Your task to perform on an android device: Turn off the flashlight Image 0: 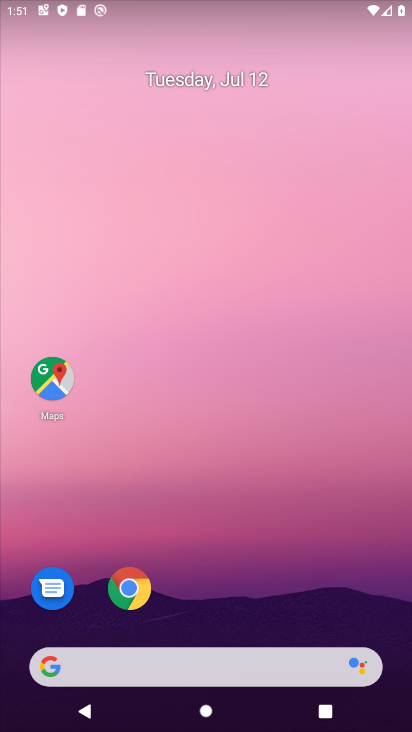
Step 0: drag from (139, 609) to (204, 304)
Your task to perform on an android device: Turn off the flashlight Image 1: 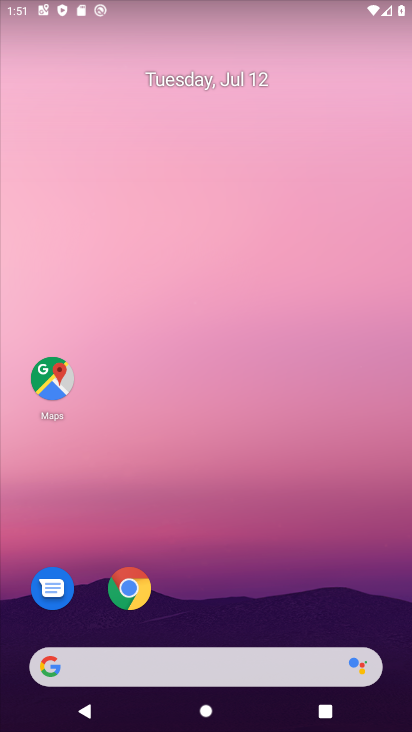
Step 1: drag from (175, 606) to (174, 113)
Your task to perform on an android device: Turn off the flashlight Image 2: 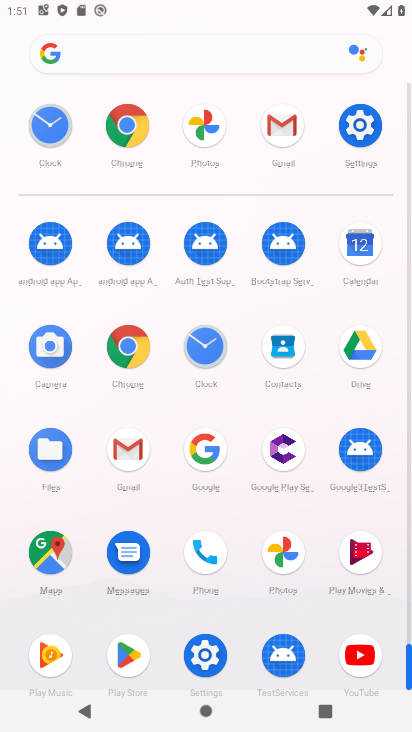
Step 2: click (355, 114)
Your task to perform on an android device: Turn off the flashlight Image 3: 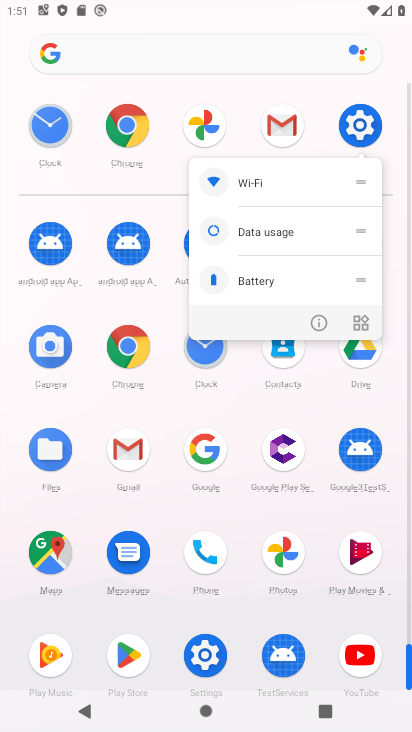
Step 3: click (314, 318)
Your task to perform on an android device: Turn off the flashlight Image 4: 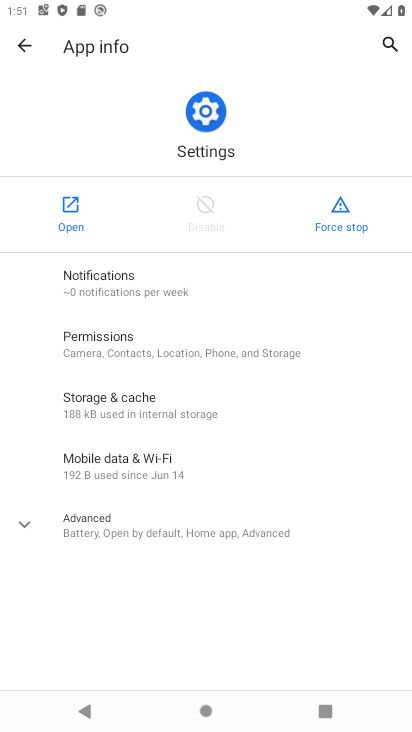
Step 4: click (73, 201)
Your task to perform on an android device: Turn off the flashlight Image 5: 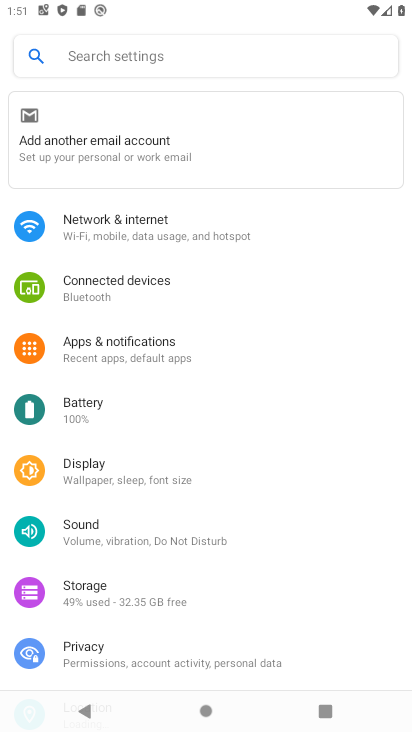
Step 5: drag from (255, 552) to (274, 193)
Your task to perform on an android device: Turn off the flashlight Image 6: 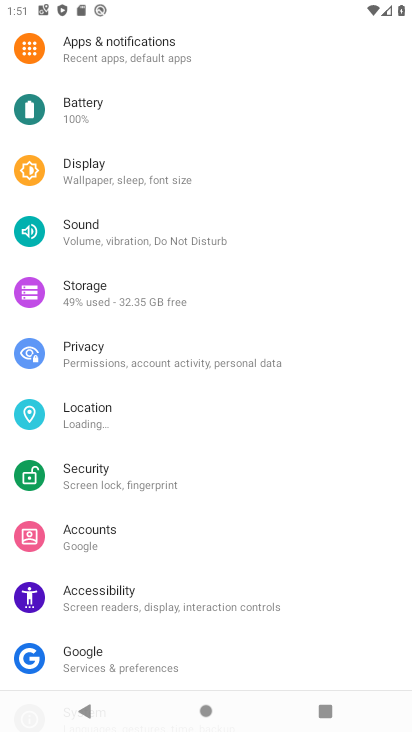
Step 6: drag from (220, 229) to (288, 691)
Your task to perform on an android device: Turn off the flashlight Image 7: 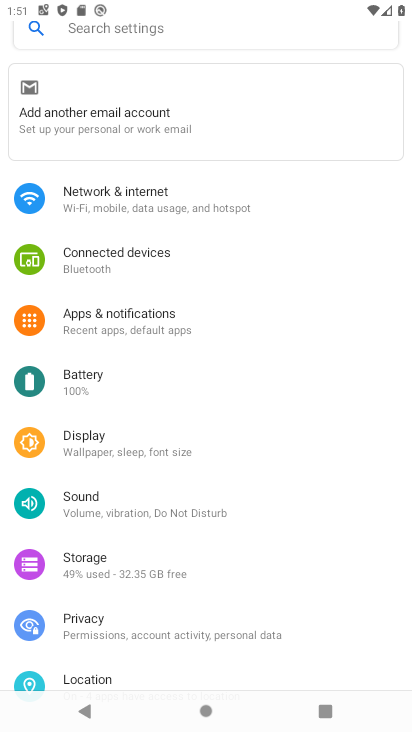
Step 7: drag from (126, 67) to (269, 471)
Your task to perform on an android device: Turn off the flashlight Image 8: 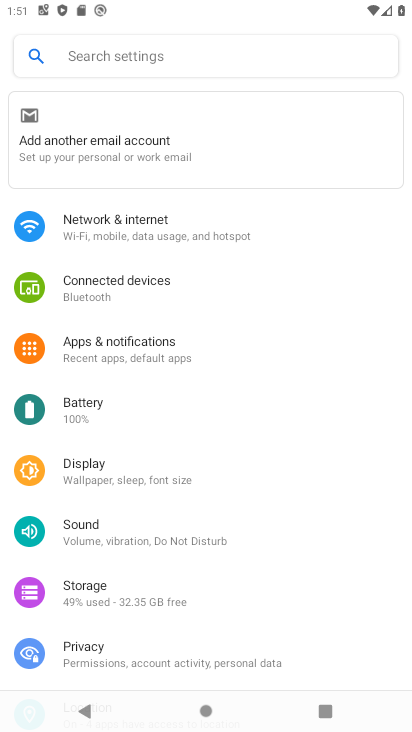
Step 8: click (96, 49)
Your task to perform on an android device: Turn off the flashlight Image 9: 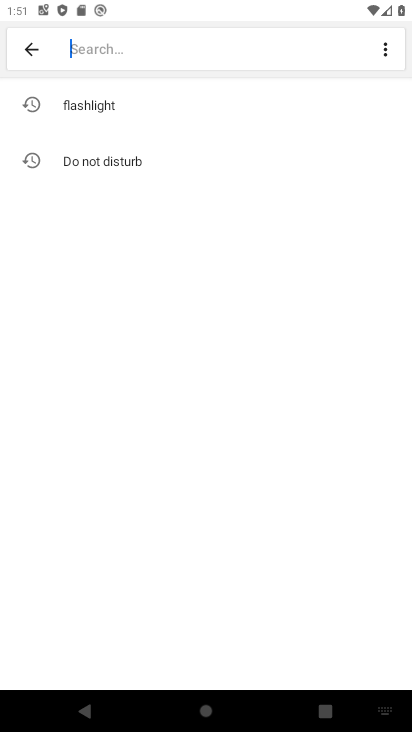
Step 9: click (118, 101)
Your task to perform on an android device: Turn off the flashlight Image 10: 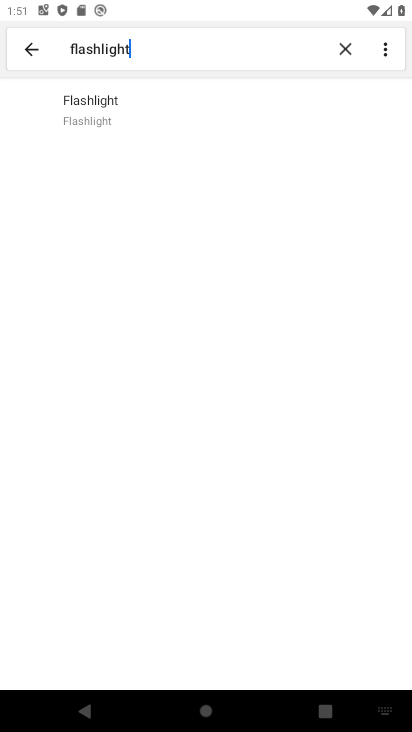
Step 10: drag from (245, 422) to (262, 139)
Your task to perform on an android device: Turn off the flashlight Image 11: 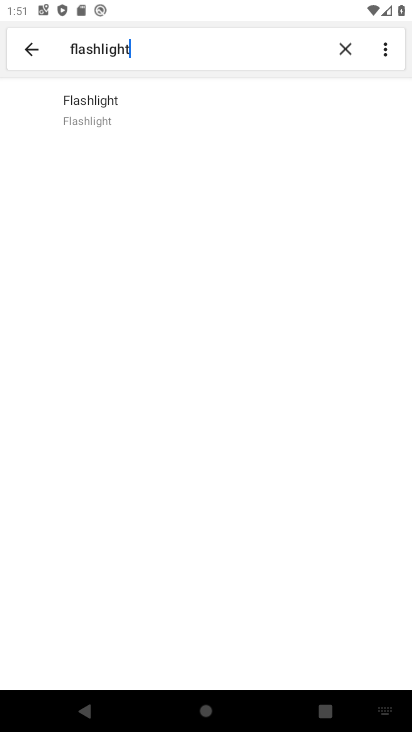
Step 11: click (146, 124)
Your task to perform on an android device: Turn off the flashlight Image 12: 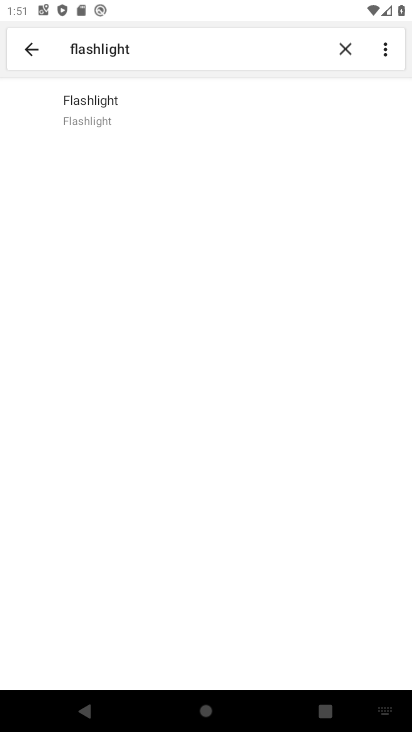
Step 12: click (75, 94)
Your task to perform on an android device: Turn off the flashlight Image 13: 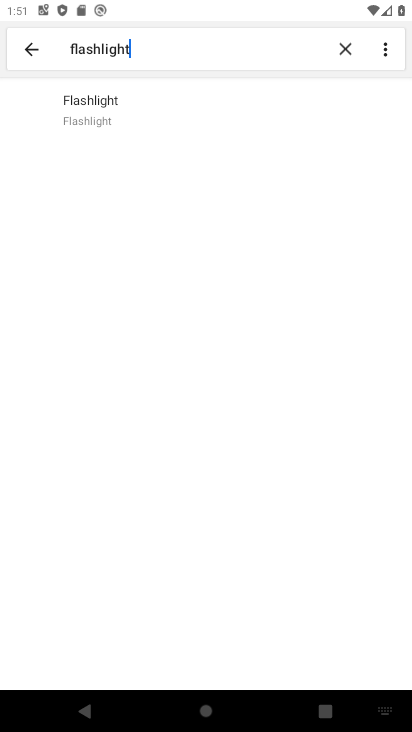
Step 13: click (121, 127)
Your task to perform on an android device: Turn off the flashlight Image 14: 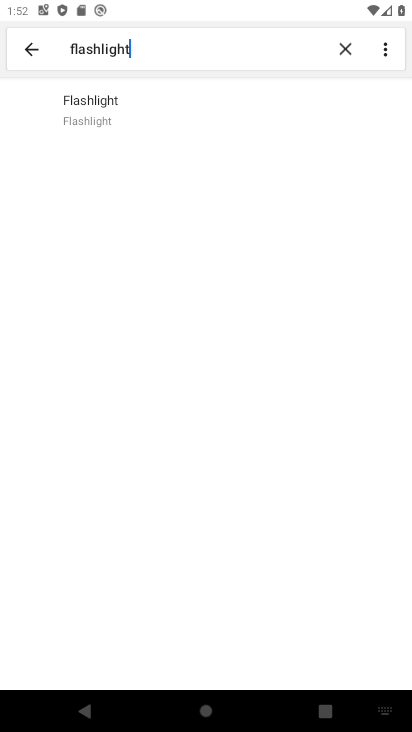
Step 14: click (141, 116)
Your task to perform on an android device: Turn off the flashlight Image 15: 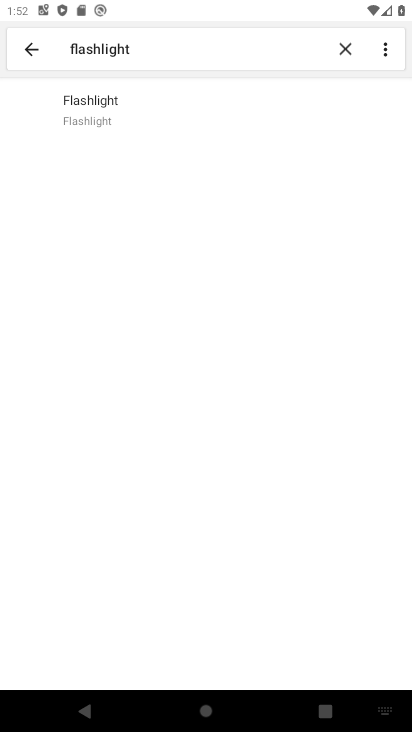
Step 15: click (86, 111)
Your task to perform on an android device: Turn off the flashlight Image 16: 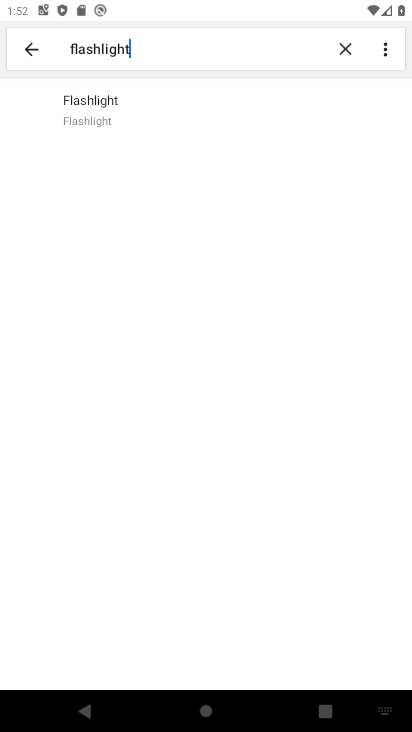
Step 16: task complete